Your task to perform on an android device: Open settings Image 0: 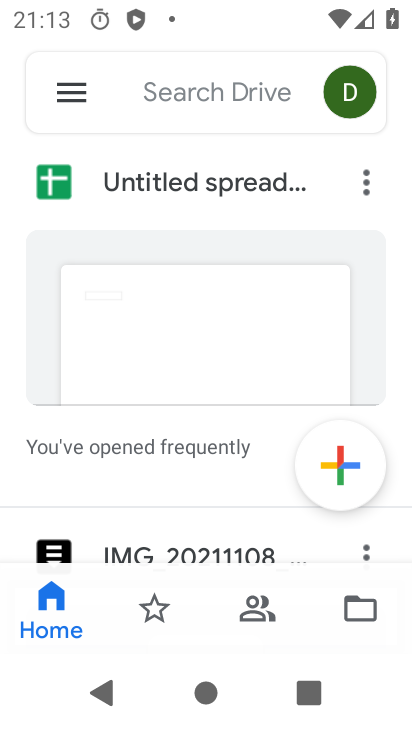
Step 0: press home button
Your task to perform on an android device: Open settings Image 1: 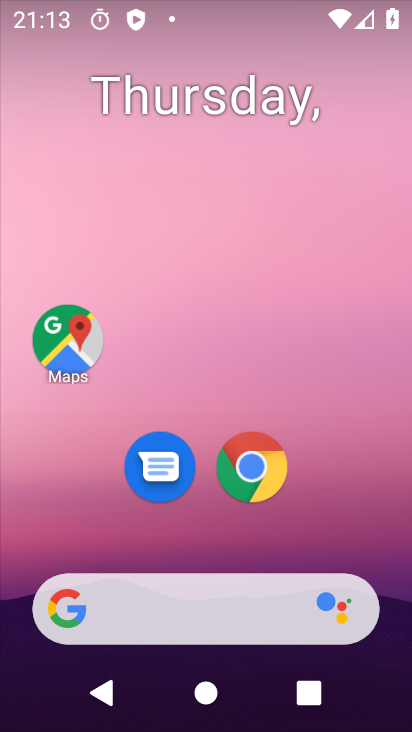
Step 1: drag from (327, 493) to (292, 100)
Your task to perform on an android device: Open settings Image 2: 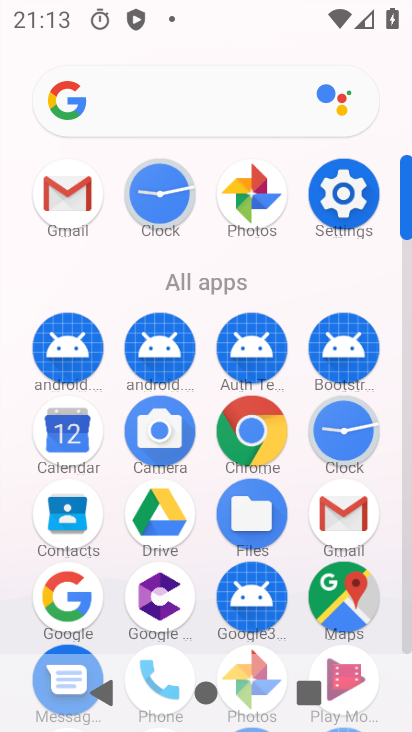
Step 2: click (348, 209)
Your task to perform on an android device: Open settings Image 3: 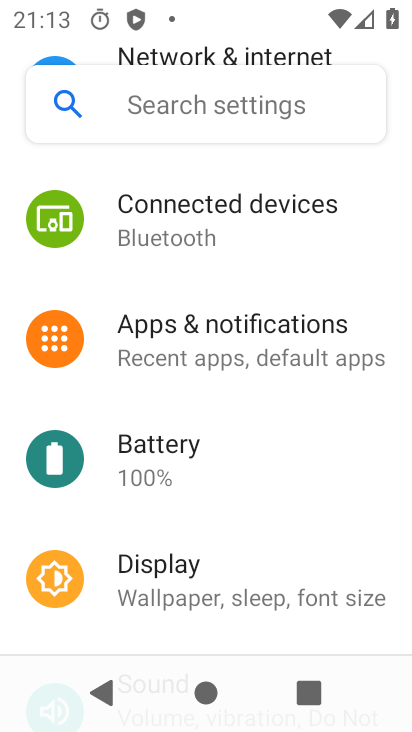
Step 3: task complete